Your task to perform on an android device: turn off airplane mode Image 0: 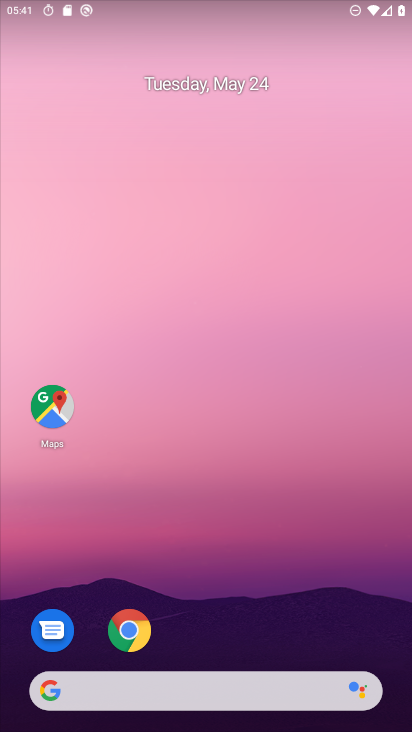
Step 0: drag from (299, 12) to (352, 563)
Your task to perform on an android device: turn off airplane mode Image 1: 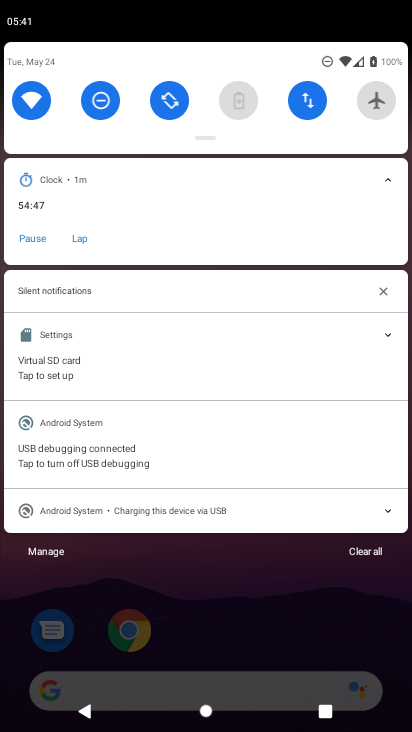
Step 1: task complete